Your task to perform on an android device: Go to display settings Image 0: 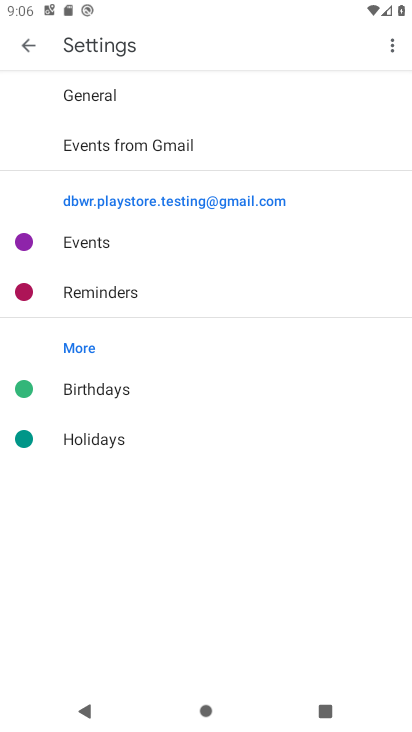
Step 0: press home button
Your task to perform on an android device: Go to display settings Image 1: 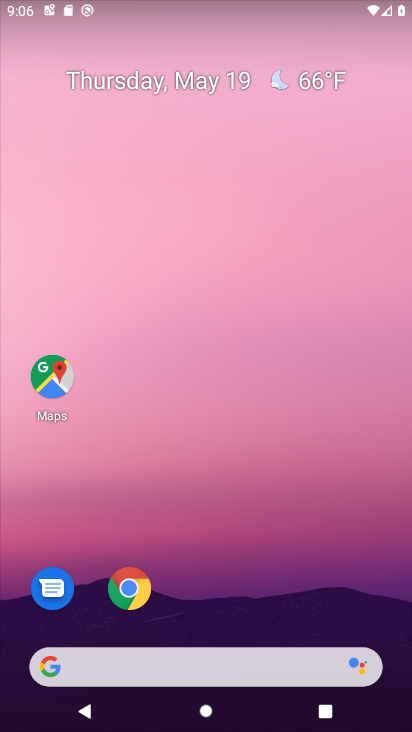
Step 1: drag from (397, 570) to (361, 232)
Your task to perform on an android device: Go to display settings Image 2: 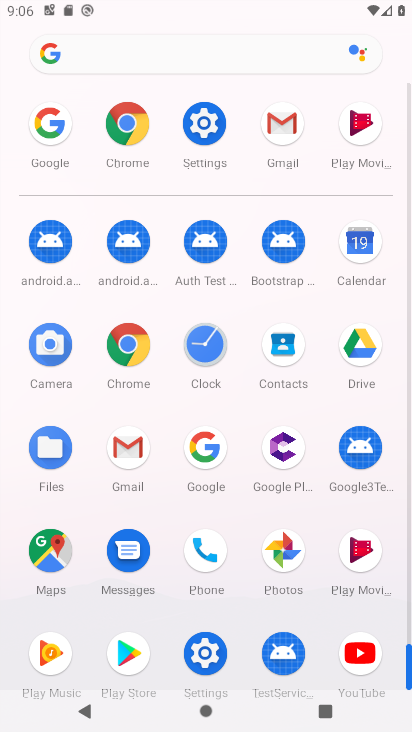
Step 2: click (214, 135)
Your task to perform on an android device: Go to display settings Image 3: 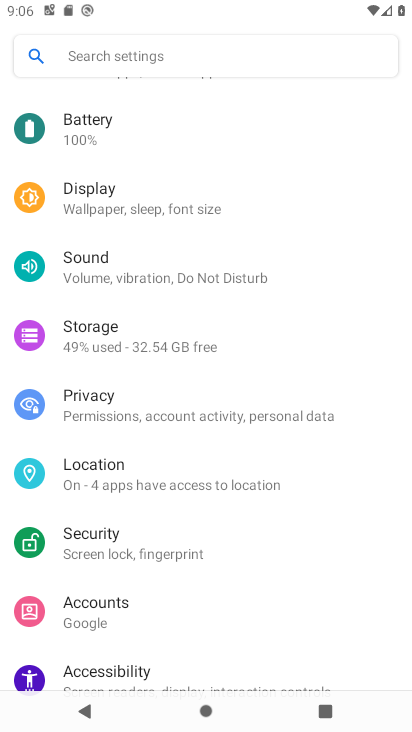
Step 3: drag from (336, 529) to (357, 373)
Your task to perform on an android device: Go to display settings Image 4: 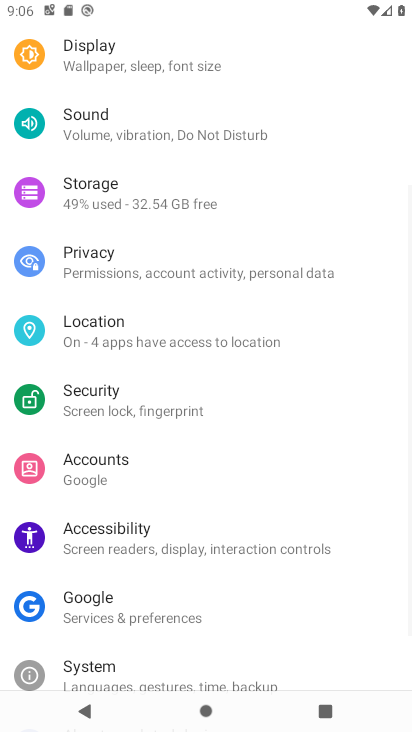
Step 4: drag from (375, 570) to (369, 426)
Your task to perform on an android device: Go to display settings Image 5: 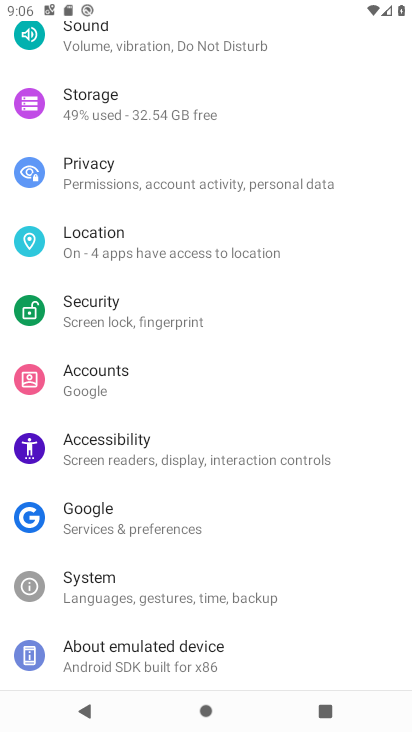
Step 5: drag from (349, 572) to (358, 467)
Your task to perform on an android device: Go to display settings Image 6: 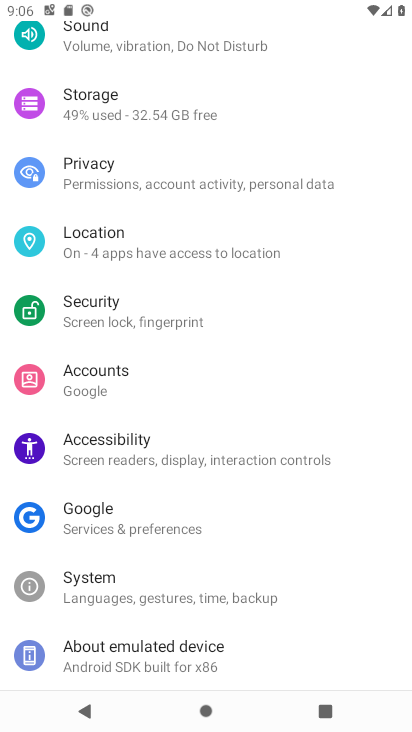
Step 6: drag from (326, 354) to (330, 464)
Your task to perform on an android device: Go to display settings Image 7: 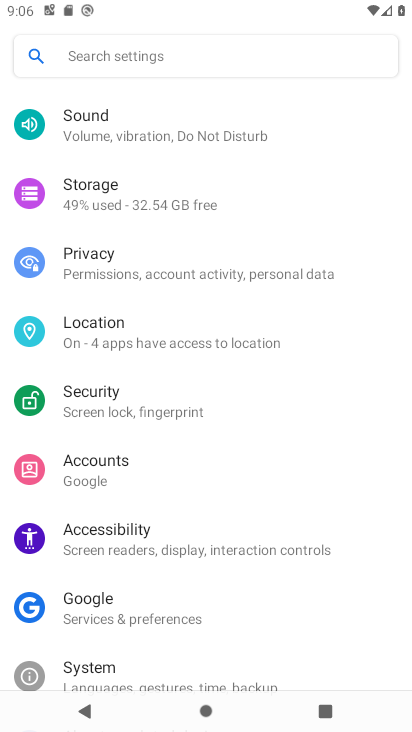
Step 7: drag from (343, 331) to (338, 415)
Your task to perform on an android device: Go to display settings Image 8: 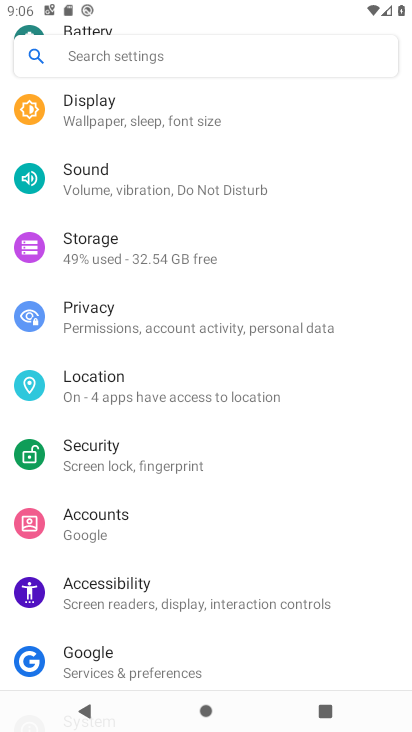
Step 8: drag from (340, 288) to (348, 382)
Your task to perform on an android device: Go to display settings Image 9: 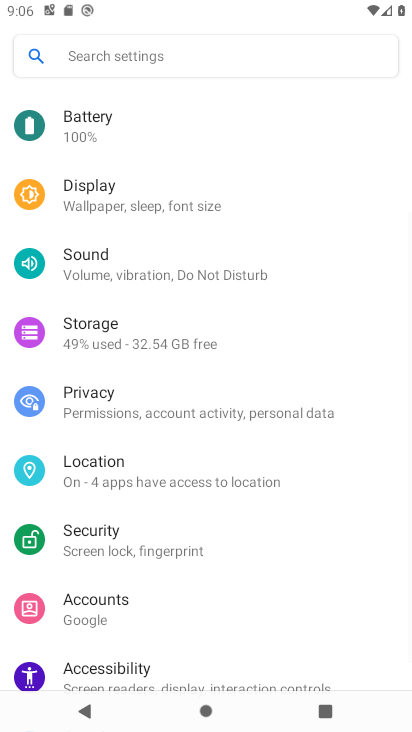
Step 9: drag from (332, 258) to (339, 366)
Your task to perform on an android device: Go to display settings Image 10: 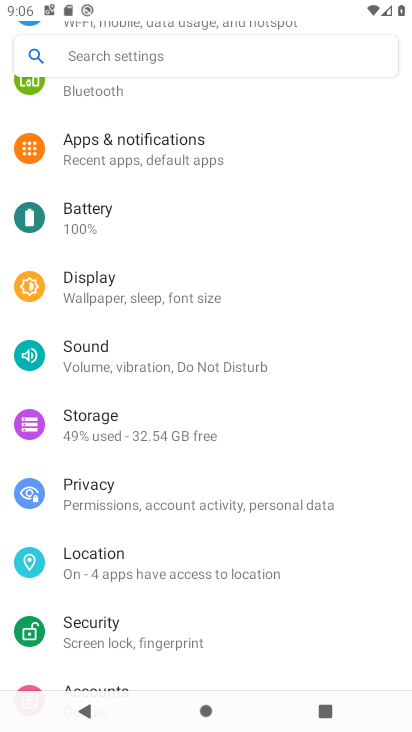
Step 10: drag from (335, 251) to (344, 352)
Your task to perform on an android device: Go to display settings Image 11: 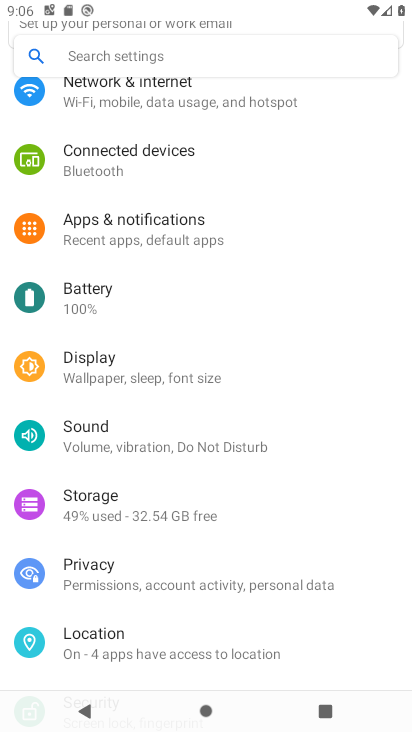
Step 11: drag from (324, 276) to (329, 367)
Your task to perform on an android device: Go to display settings Image 12: 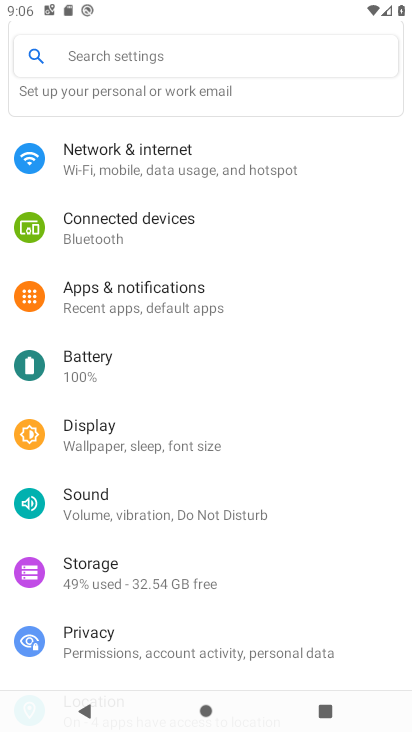
Step 12: click (221, 444)
Your task to perform on an android device: Go to display settings Image 13: 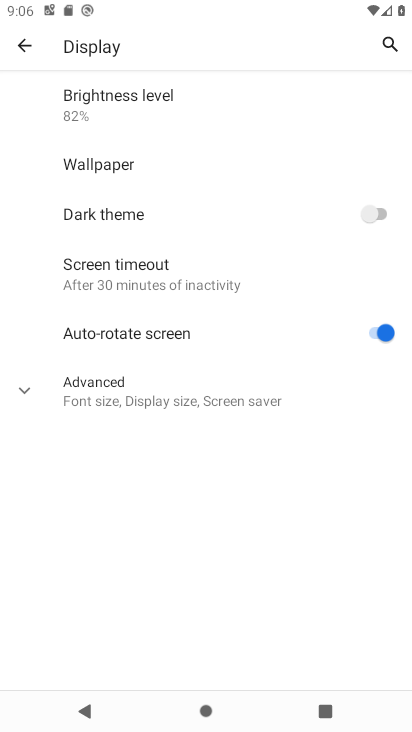
Step 13: click (236, 413)
Your task to perform on an android device: Go to display settings Image 14: 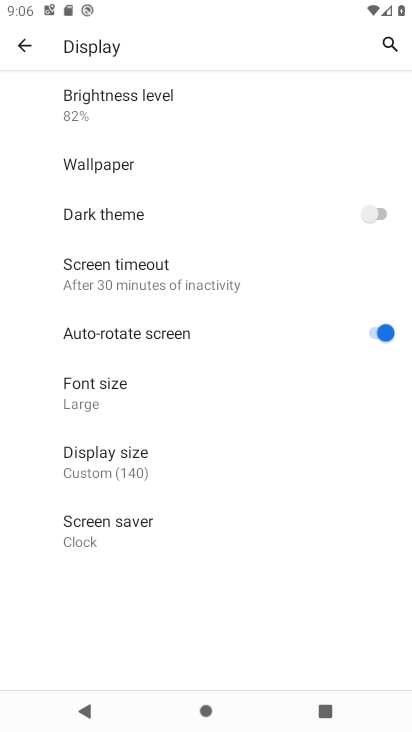
Step 14: task complete